Your task to perform on an android device: open chrome and create a bookmark for the current page Image 0: 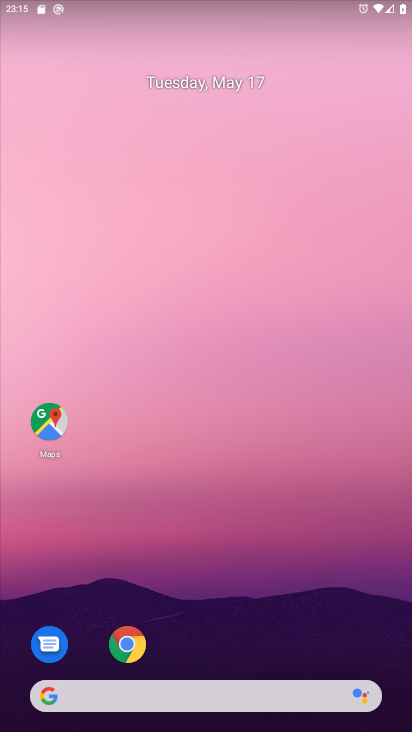
Step 0: drag from (262, 618) to (307, 220)
Your task to perform on an android device: open chrome and create a bookmark for the current page Image 1: 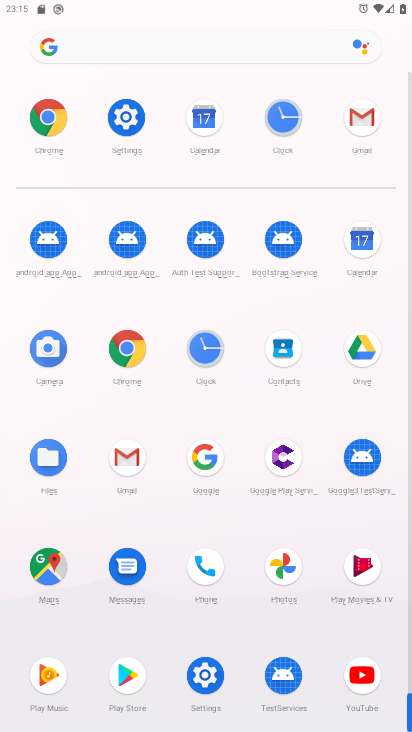
Step 1: click (129, 339)
Your task to perform on an android device: open chrome and create a bookmark for the current page Image 2: 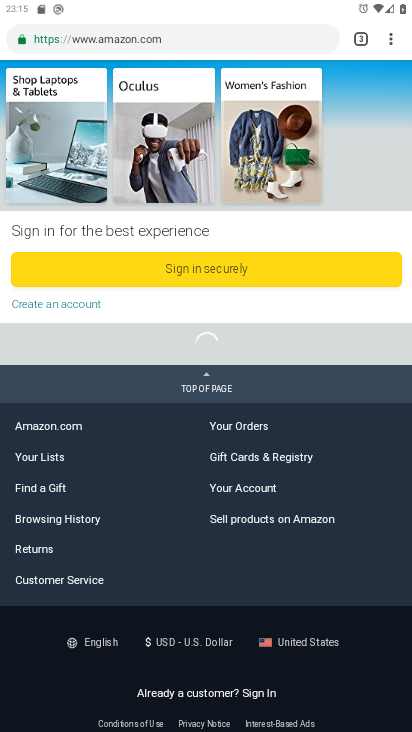
Step 2: click (388, 36)
Your task to perform on an android device: open chrome and create a bookmark for the current page Image 3: 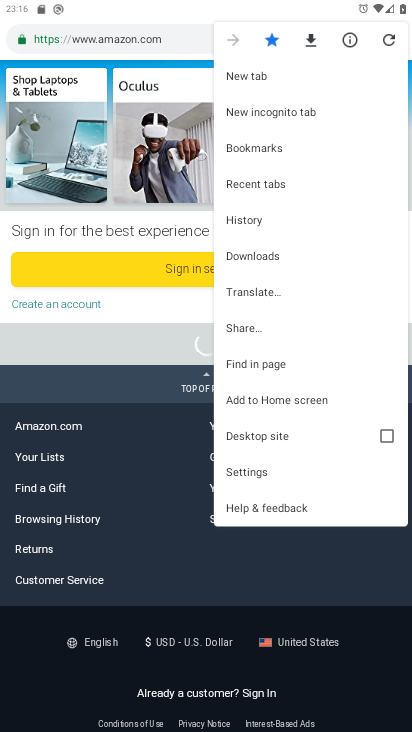
Step 3: task complete